Your task to perform on an android device: Open Android settings Image 0: 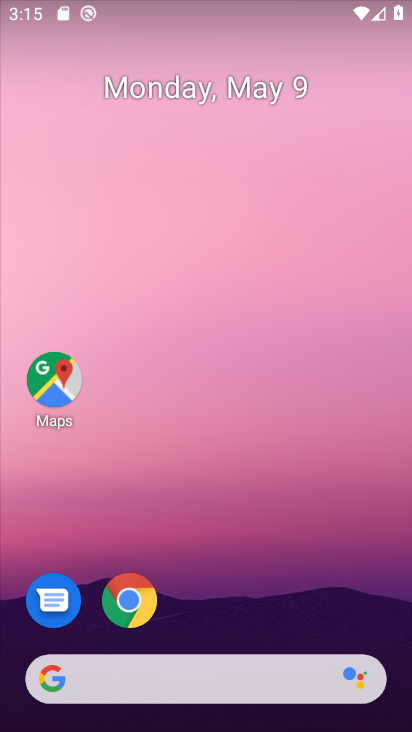
Step 0: drag from (244, 593) to (245, 296)
Your task to perform on an android device: Open Android settings Image 1: 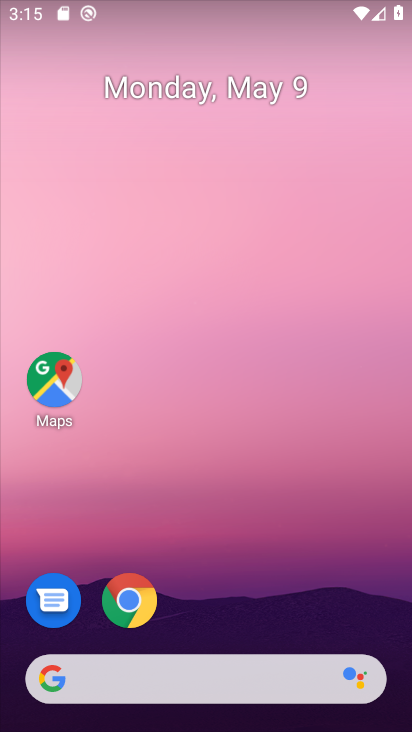
Step 1: drag from (196, 585) to (165, 210)
Your task to perform on an android device: Open Android settings Image 2: 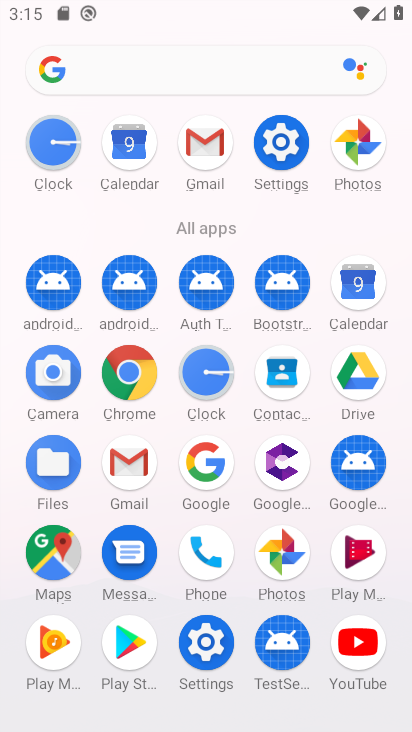
Step 2: click (277, 169)
Your task to perform on an android device: Open Android settings Image 3: 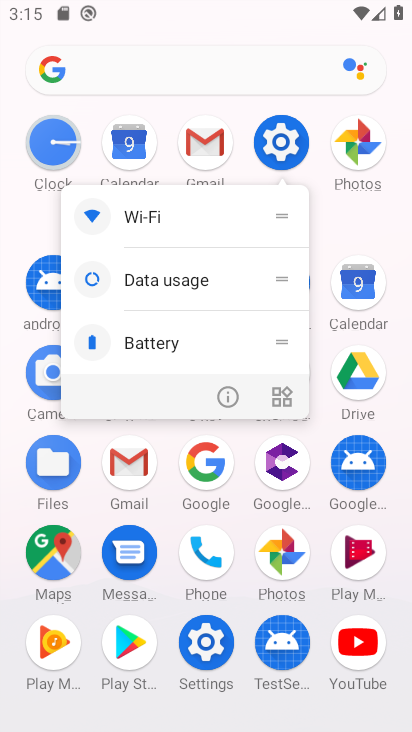
Step 3: click (222, 390)
Your task to perform on an android device: Open Android settings Image 4: 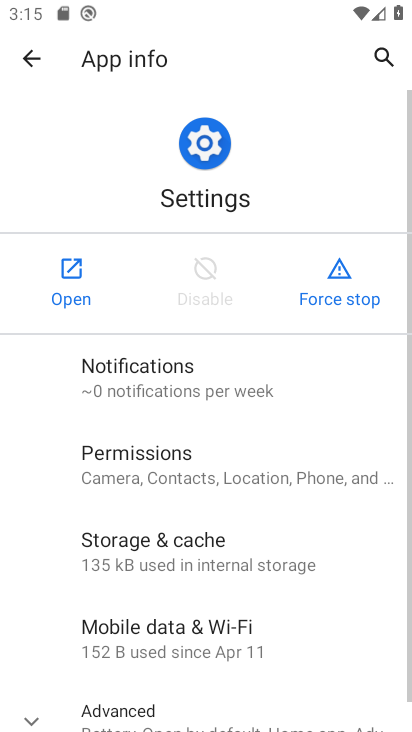
Step 4: click (83, 288)
Your task to perform on an android device: Open Android settings Image 5: 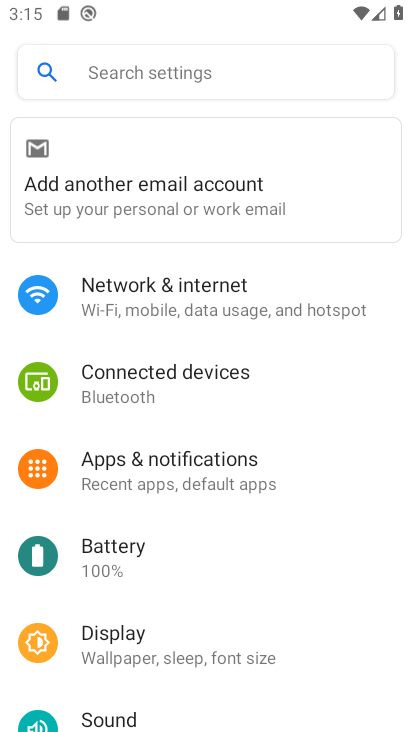
Step 5: task complete